Your task to perform on an android device: turn off airplane mode Image 0: 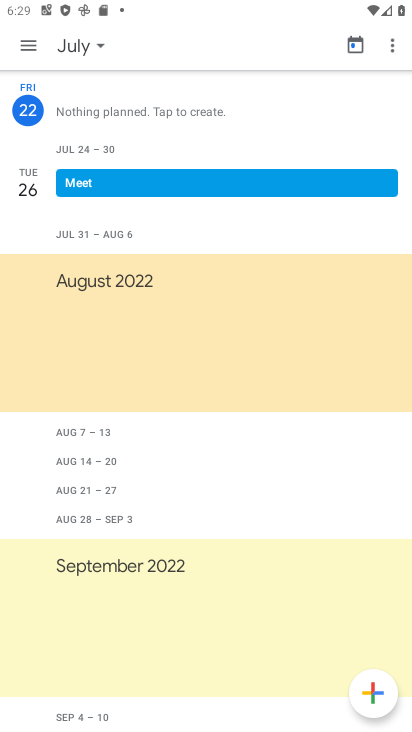
Step 0: press home button
Your task to perform on an android device: turn off airplane mode Image 1: 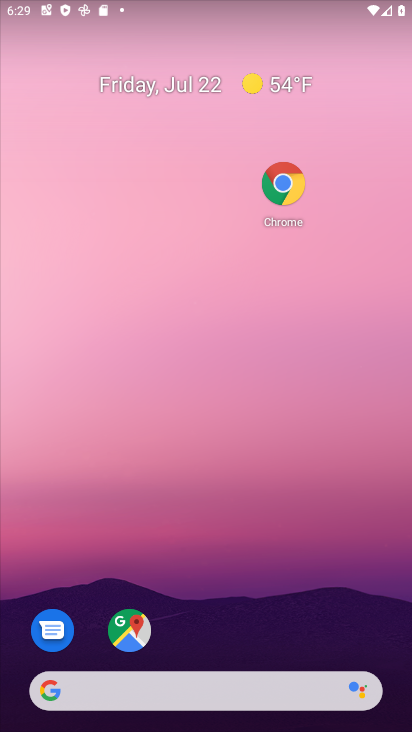
Step 1: drag from (192, 625) to (192, 154)
Your task to perform on an android device: turn off airplane mode Image 2: 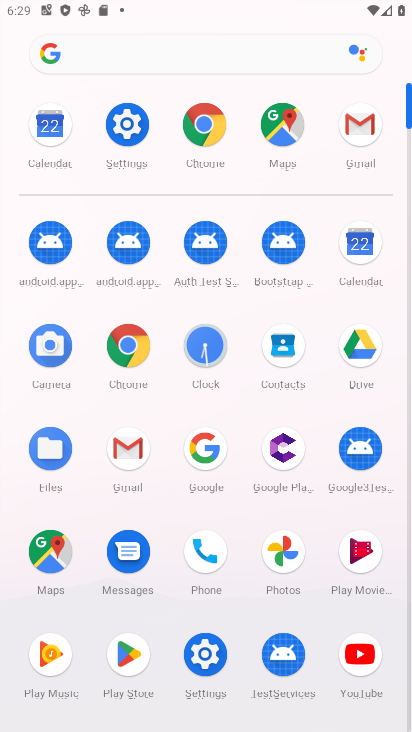
Step 2: click (118, 121)
Your task to perform on an android device: turn off airplane mode Image 3: 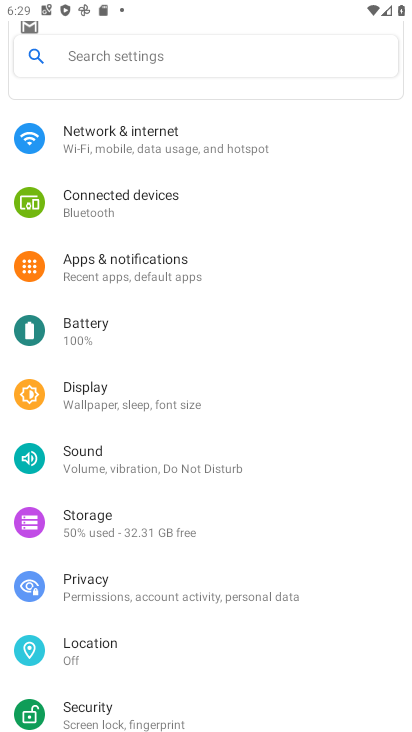
Step 3: click (135, 134)
Your task to perform on an android device: turn off airplane mode Image 4: 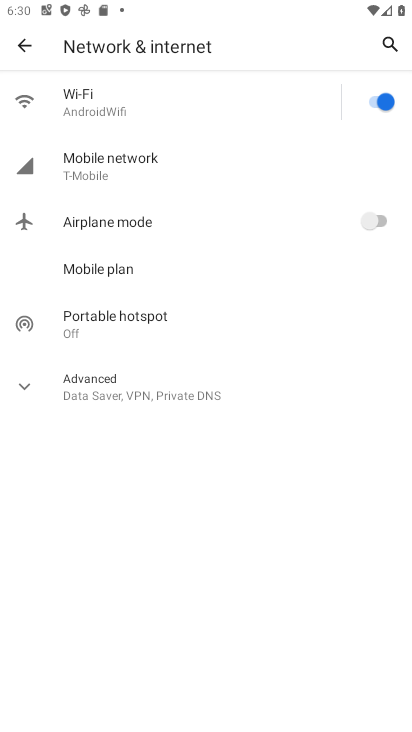
Step 4: task complete